Your task to perform on an android device: What time is it in Los Angeles? Image 0: 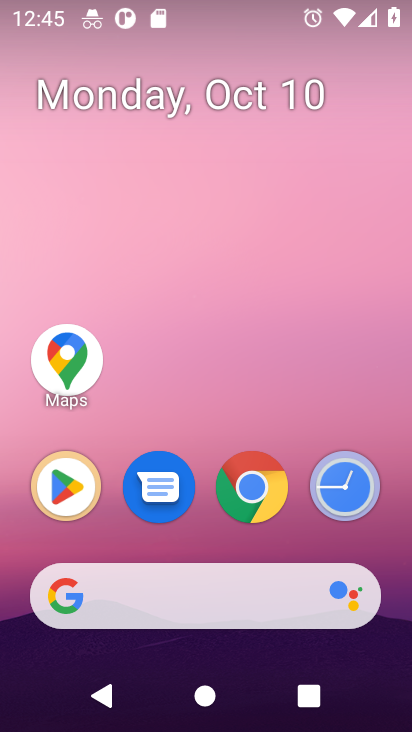
Step 0: click (243, 493)
Your task to perform on an android device: What time is it in Los Angeles? Image 1: 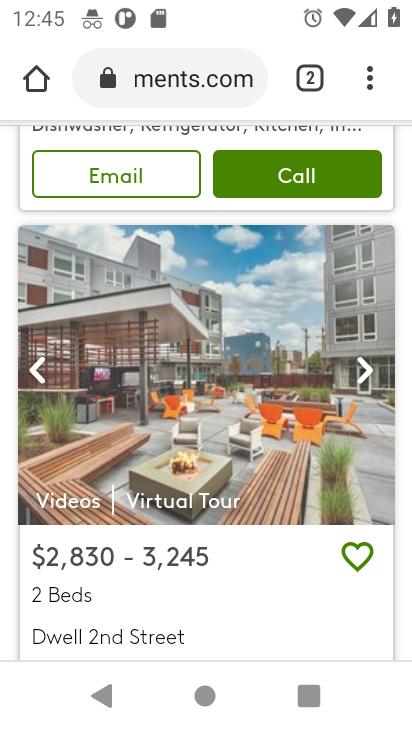
Step 1: click (185, 72)
Your task to perform on an android device: What time is it in Los Angeles? Image 2: 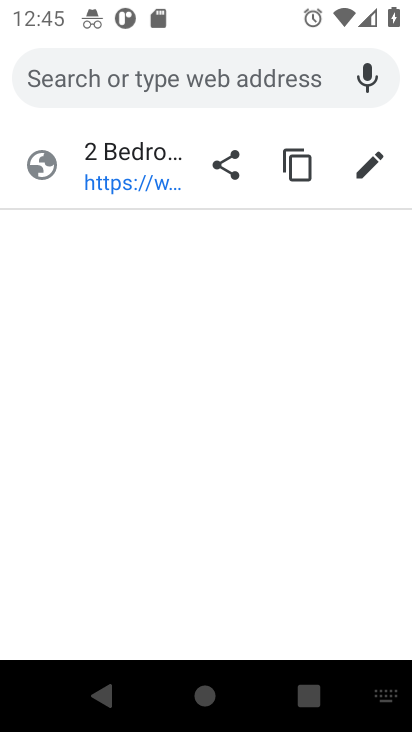
Step 2: type "time in los angeles"
Your task to perform on an android device: What time is it in Los Angeles? Image 3: 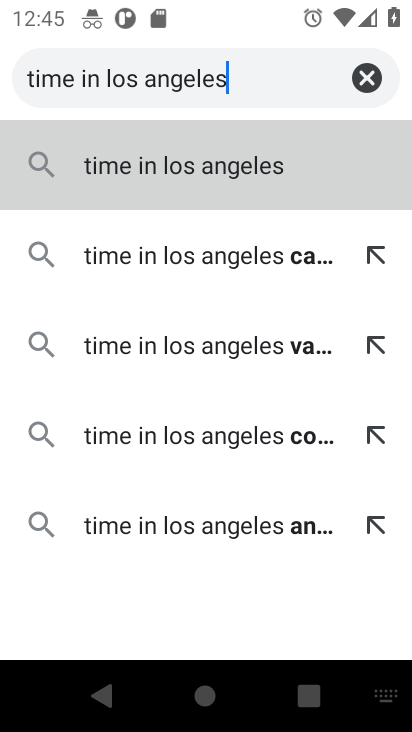
Step 3: type ""
Your task to perform on an android device: What time is it in Los Angeles? Image 4: 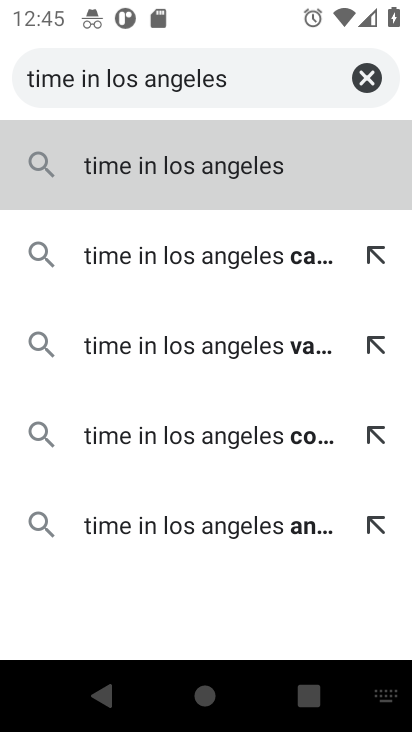
Step 4: press enter
Your task to perform on an android device: What time is it in Los Angeles? Image 5: 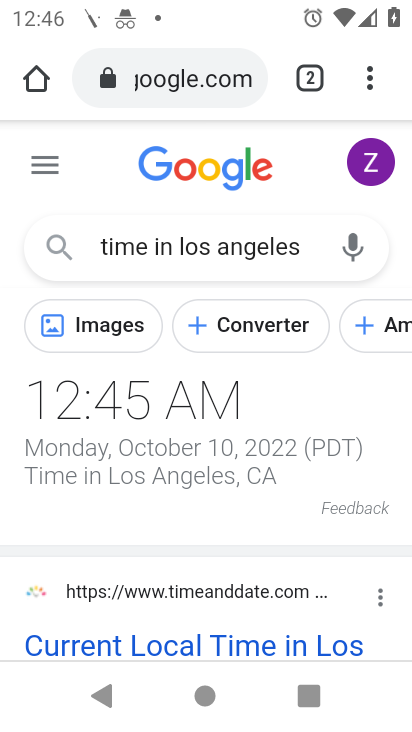
Step 5: task complete